Your task to perform on an android device: Search for the new ikea dresser Image 0: 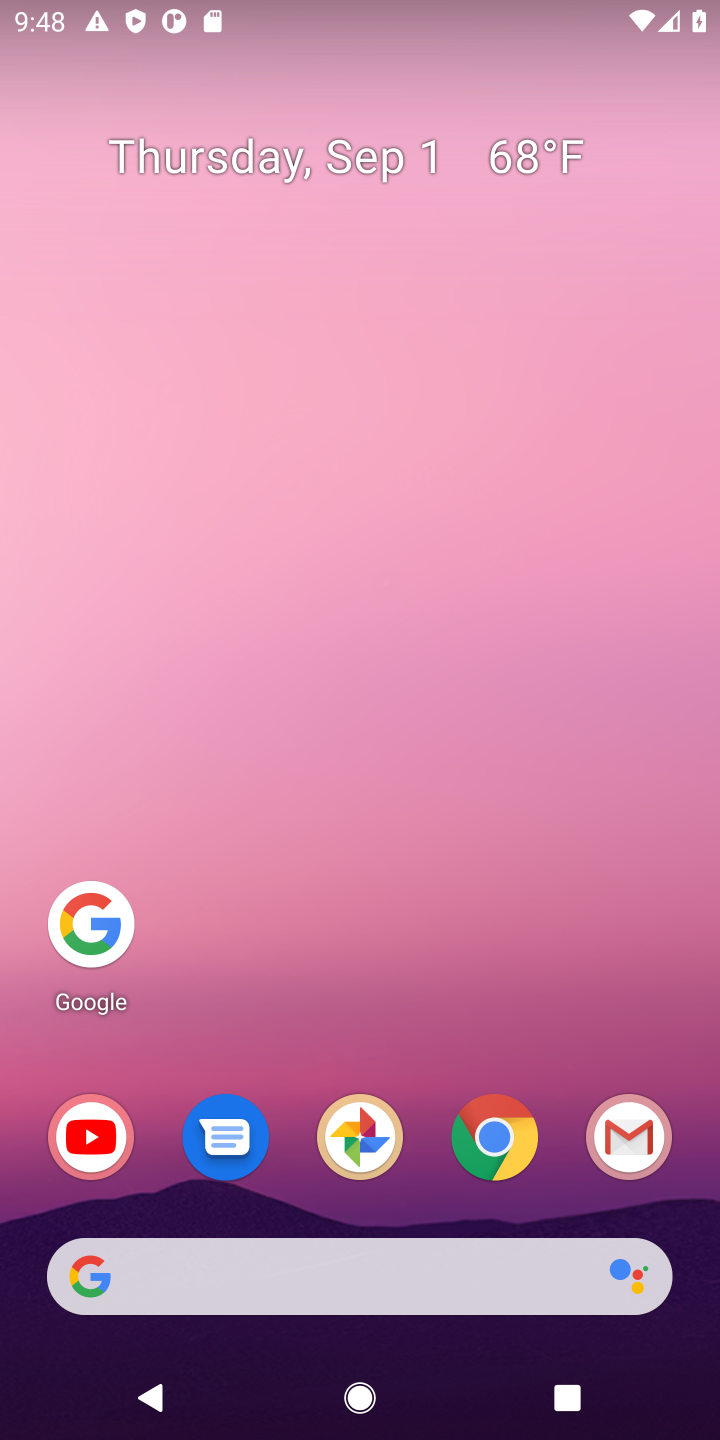
Step 0: click (264, 1259)
Your task to perform on an android device: Search for the new ikea dresser Image 1: 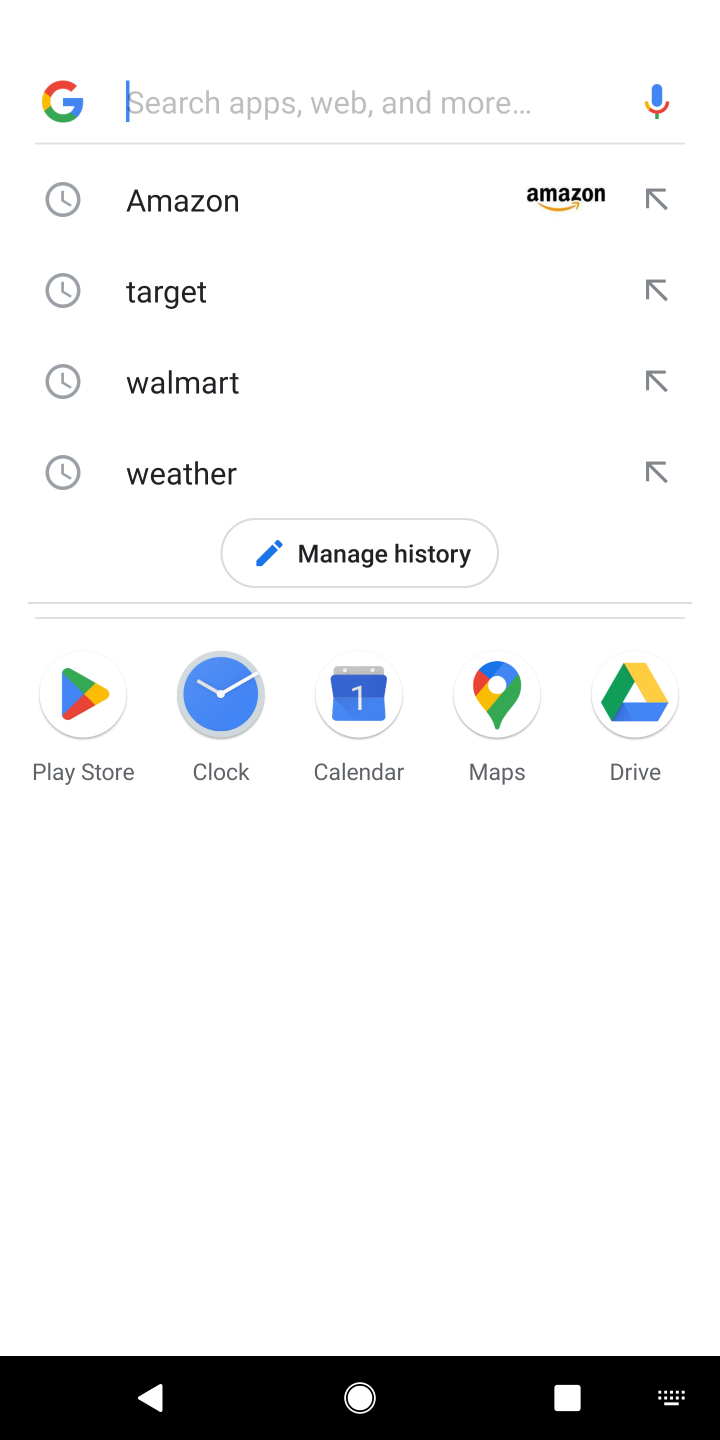
Step 1: type "new ikea dresser"
Your task to perform on an android device: Search for the new ikea dresser Image 2: 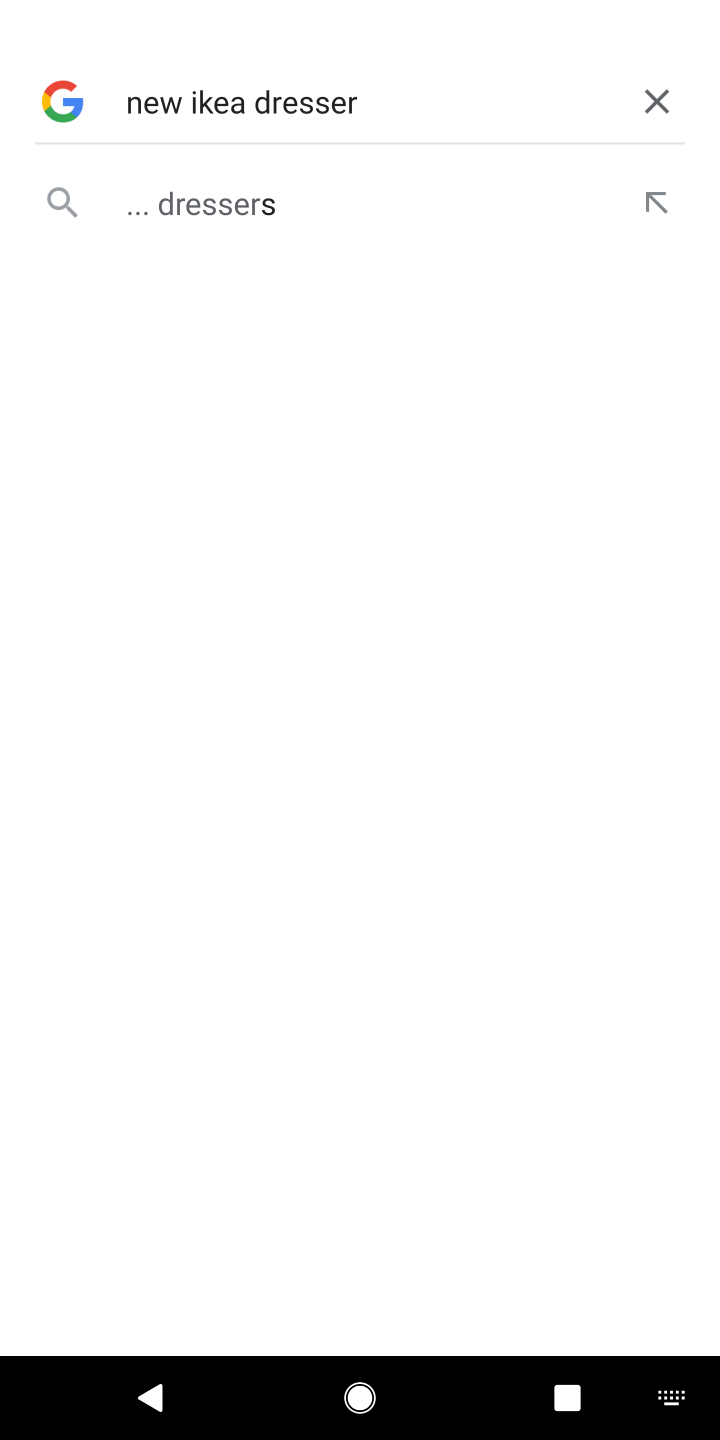
Step 2: click (192, 213)
Your task to perform on an android device: Search for the new ikea dresser Image 3: 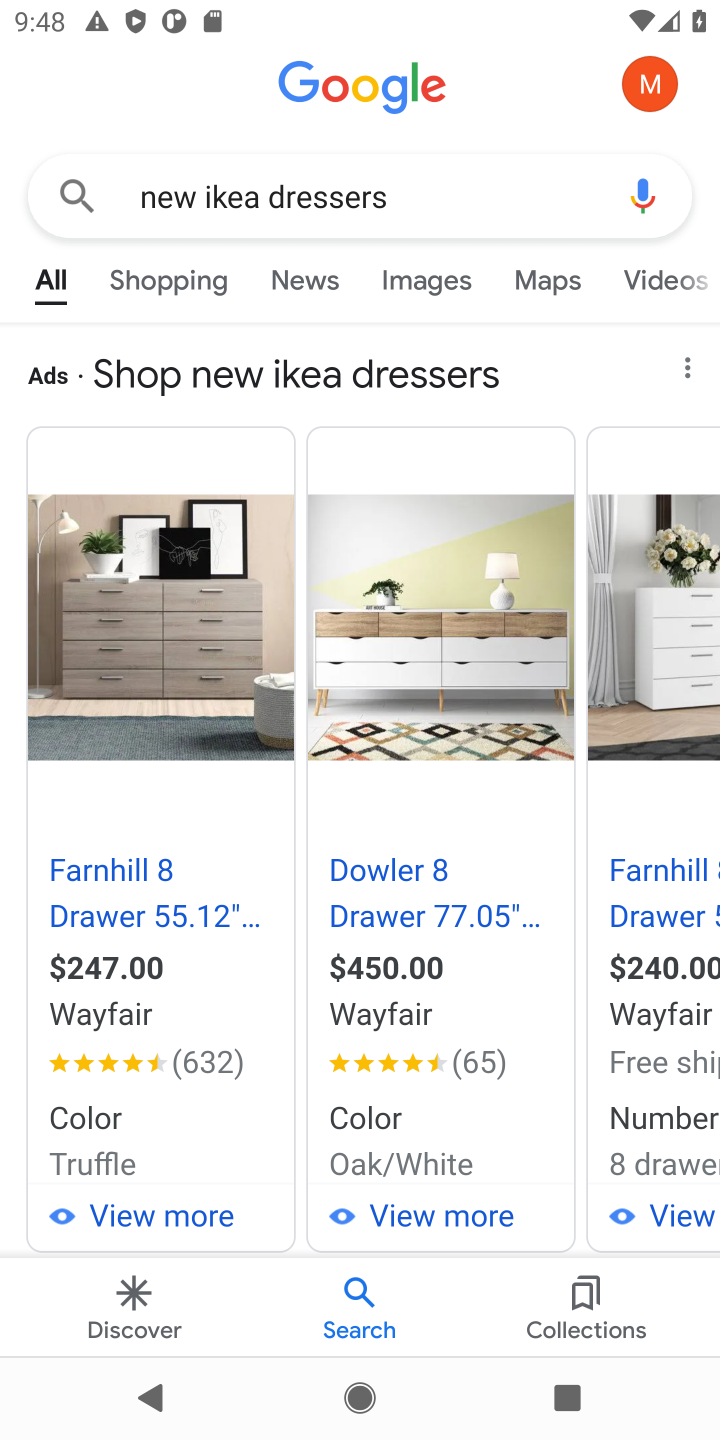
Step 3: task complete